Your task to perform on an android device: set an alarm Image 0: 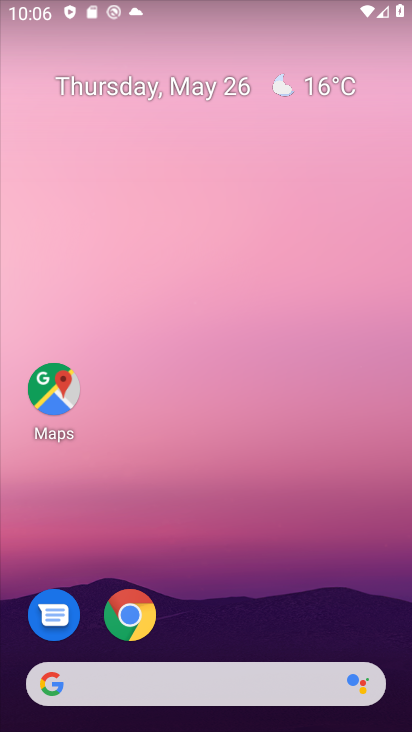
Step 0: drag from (302, 650) to (248, 331)
Your task to perform on an android device: set an alarm Image 1: 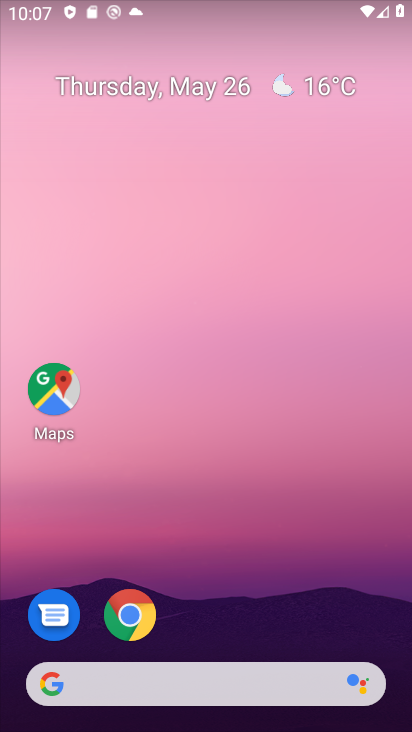
Step 1: drag from (218, 700) to (135, 250)
Your task to perform on an android device: set an alarm Image 2: 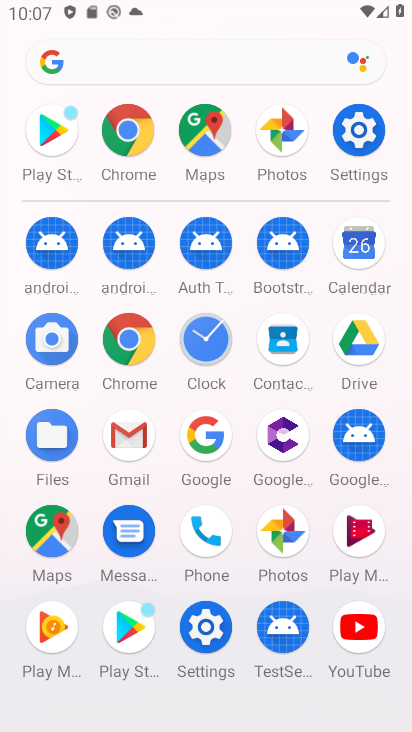
Step 2: click (226, 341)
Your task to perform on an android device: set an alarm Image 3: 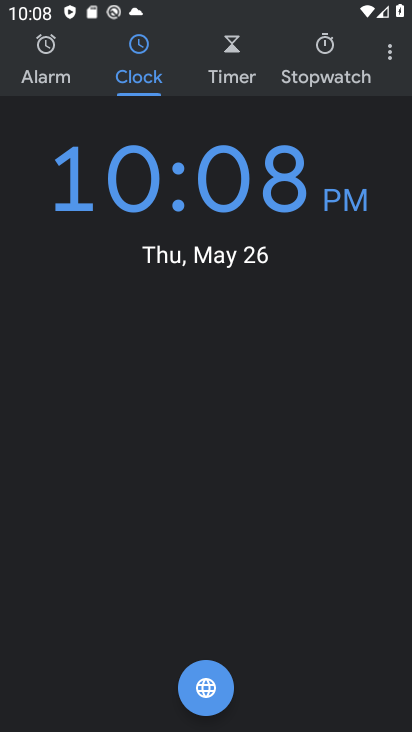
Step 3: click (52, 54)
Your task to perform on an android device: set an alarm Image 4: 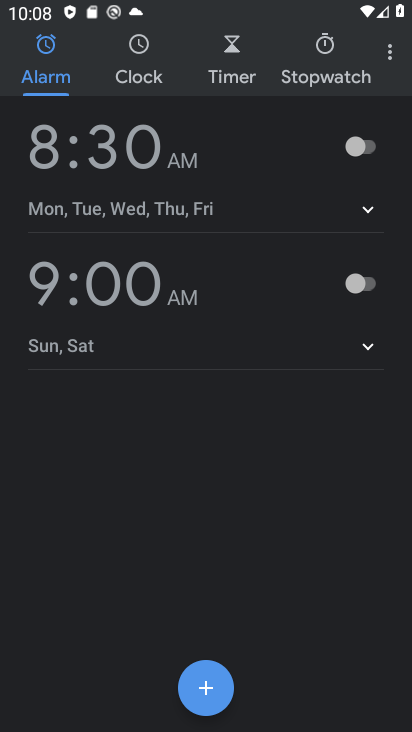
Step 4: click (370, 145)
Your task to perform on an android device: set an alarm Image 5: 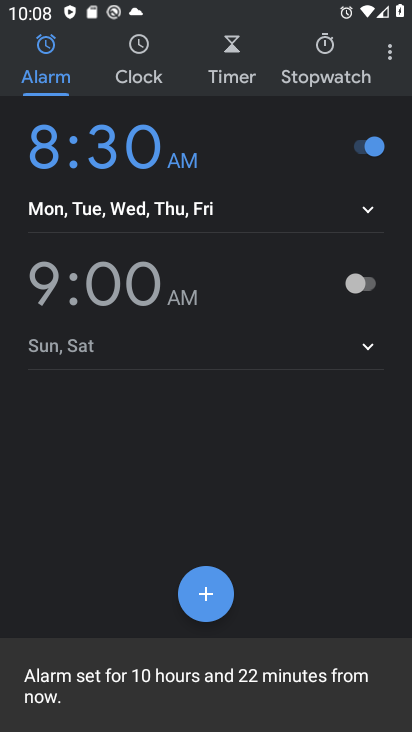
Step 5: task complete